Your task to perform on an android device: turn off airplane mode Image 0: 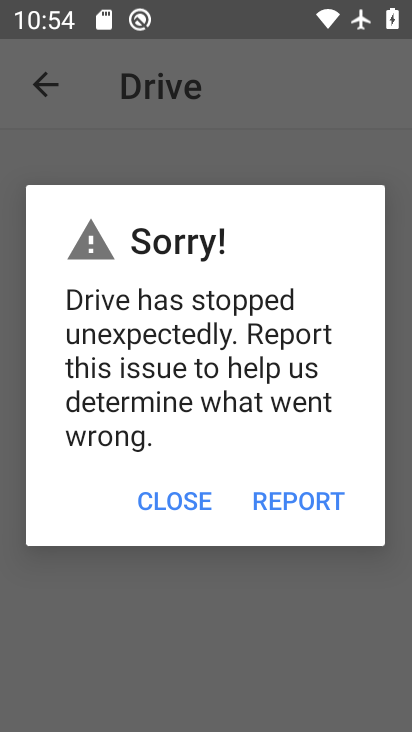
Step 0: press home button
Your task to perform on an android device: turn off airplane mode Image 1: 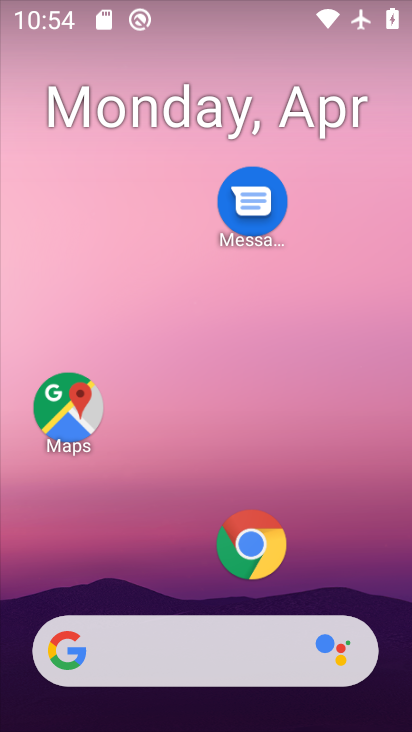
Step 1: drag from (206, 14) to (215, 692)
Your task to perform on an android device: turn off airplane mode Image 2: 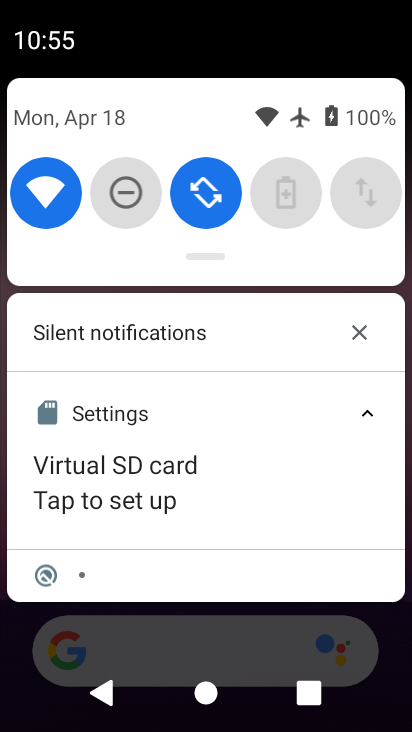
Step 2: drag from (235, 255) to (235, 712)
Your task to perform on an android device: turn off airplane mode Image 3: 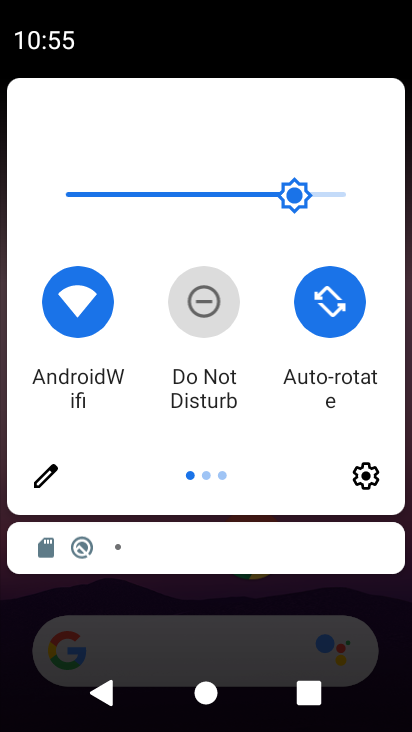
Step 3: drag from (349, 340) to (61, 327)
Your task to perform on an android device: turn off airplane mode Image 4: 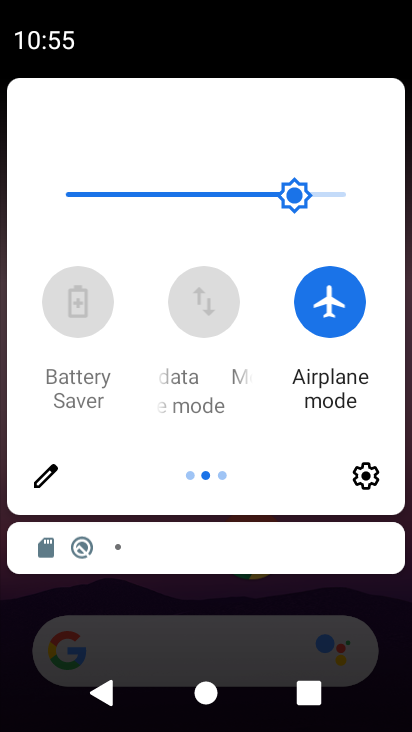
Step 4: click (329, 304)
Your task to perform on an android device: turn off airplane mode Image 5: 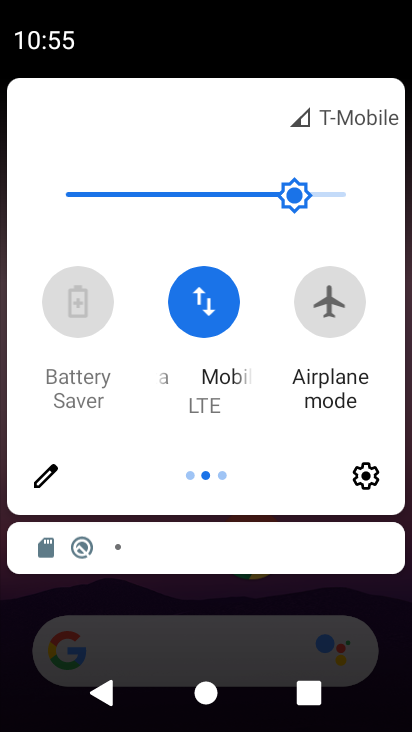
Step 5: task complete